Your task to perform on an android device: toggle notifications settings in the gmail app Image 0: 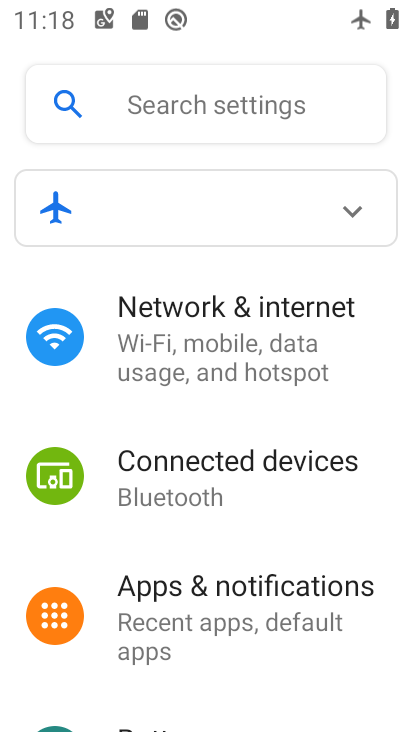
Step 0: press home button
Your task to perform on an android device: toggle notifications settings in the gmail app Image 1: 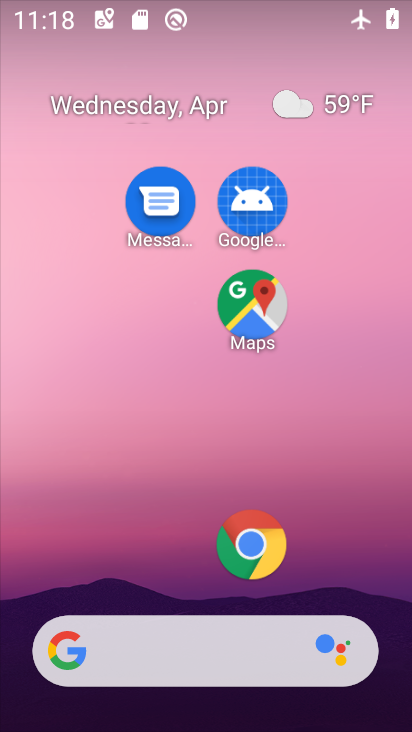
Step 1: drag from (180, 576) to (183, 133)
Your task to perform on an android device: toggle notifications settings in the gmail app Image 2: 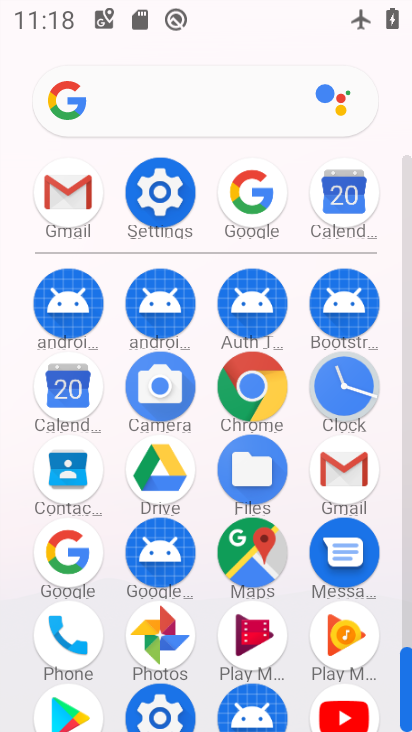
Step 2: click (71, 203)
Your task to perform on an android device: toggle notifications settings in the gmail app Image 3: 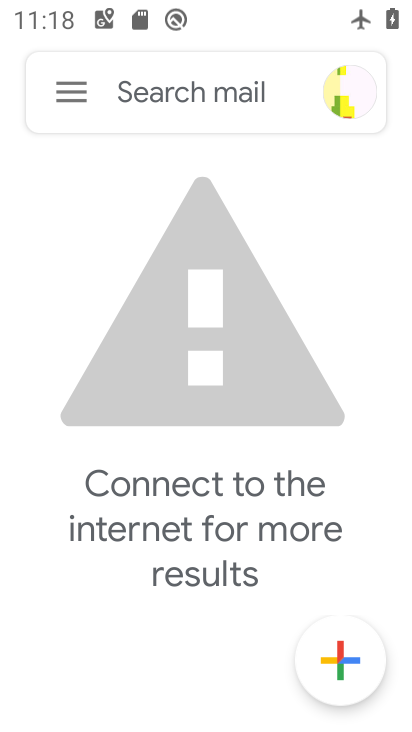
Step 3: click (56, 86)
Your task to perform on an android device: toggle notifications settings in the gmail app Image 4: 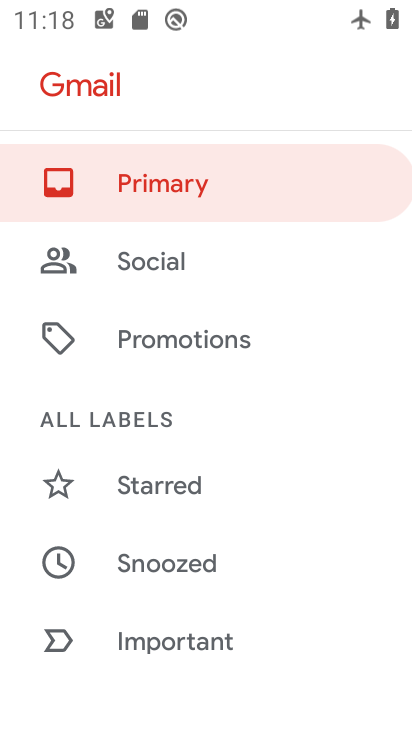
Step 4: click (81, 97)
Your task to perform on an android device: toggle notifications settings in the gmail app Image 5: 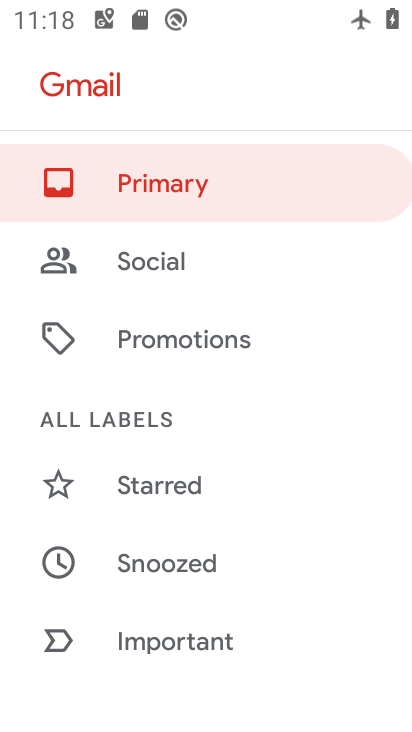
Step 5: drag from (194, 620) to (246, 210)
Your task to perform on an android device: toggle notifications settings in the gmail app Image 6: 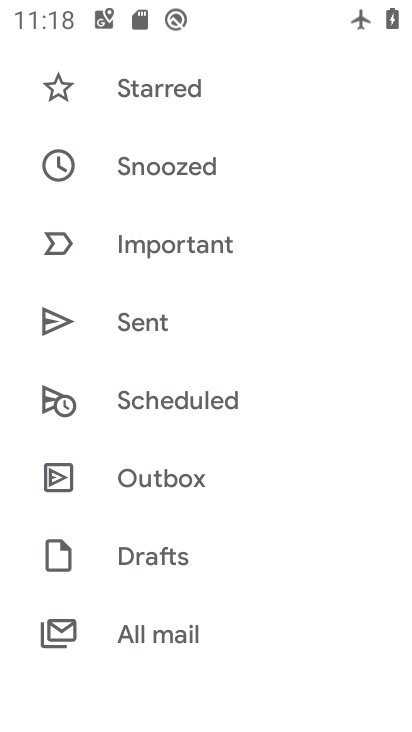
Step 6: drag from (264, 563) to (276, 220)
Your task to perform on an android device: toggle notifications settings in the gmail app Image 7: 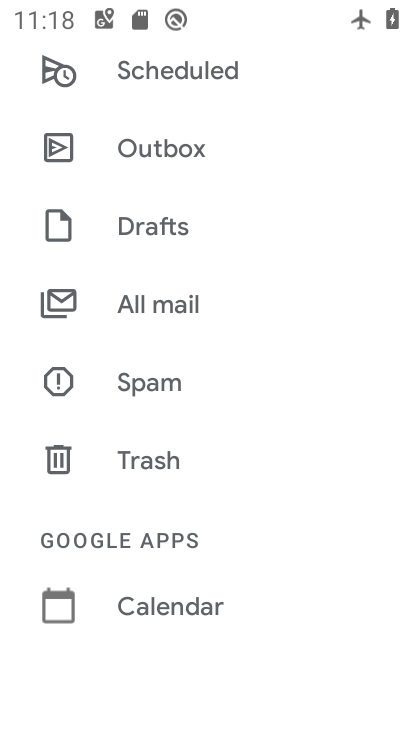
Step 7: drag from (254, 596) to (265, 203)
Your task to perform on an android device: toggle notifications settings in the gmail app Image 8: 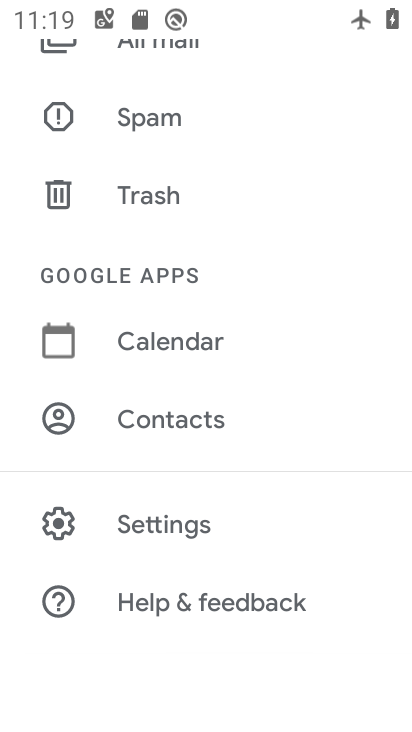
Step 8: click (177, 514)
Your task to perform on an android device: toggle notifications settings in the gmail app Image 9: 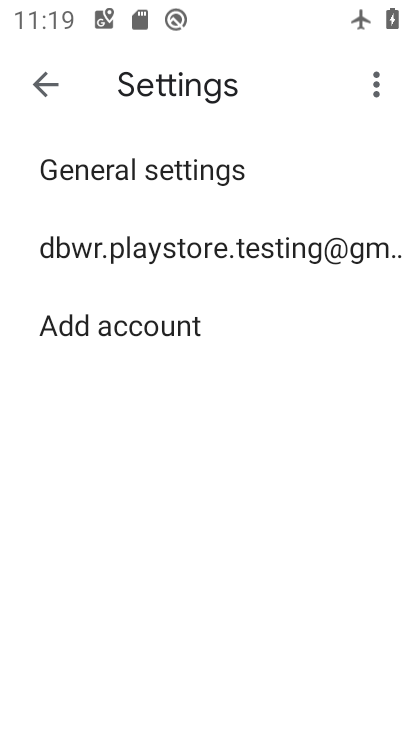
Step 9: click (148, 238)
Your task to perform on an android device: toggle notifications settings in the gmail app Image 10: 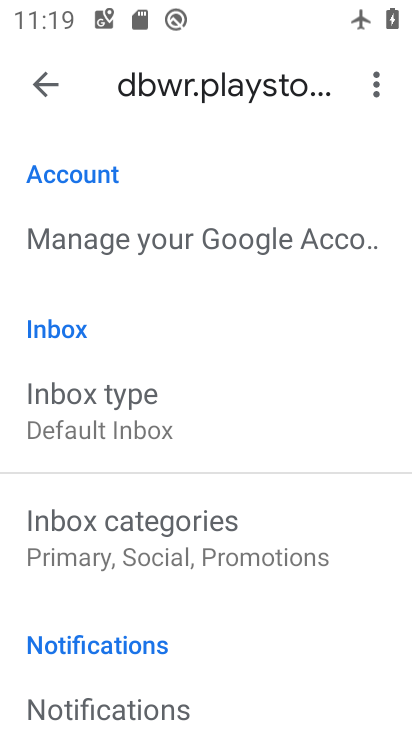
Step 10: drag from (224, 592) to (258, 249)
Your task to perform on an android device: toggle notifications settings in the gmail app Image 11: 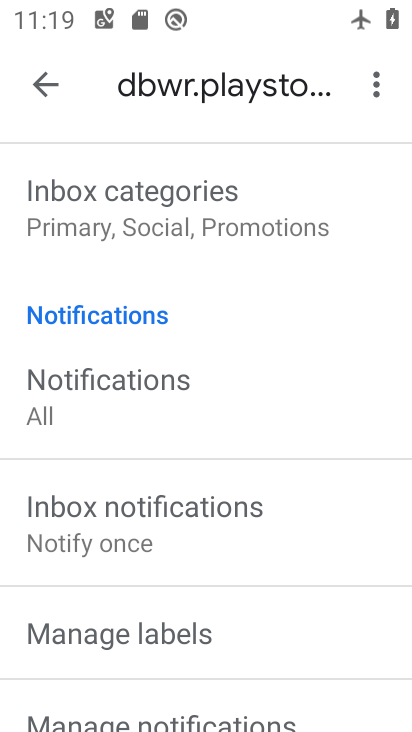
Step 11: click (232, 704)
Your task to perform on an android device: toggle notifications settings in the gmail app Image 12: 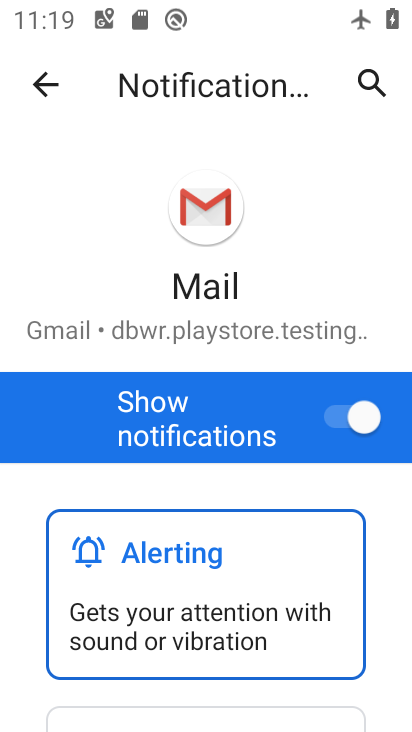
Step 12: click (327, 414)
Your task to perform on an android device: toggle notifications settings in the gmail app Image 13: 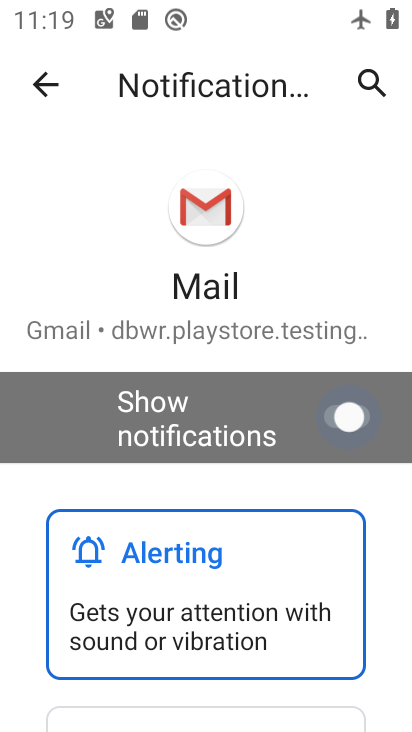
Step 13: task complete